Your task to perform on an android device: What is the recent news? Image 0: 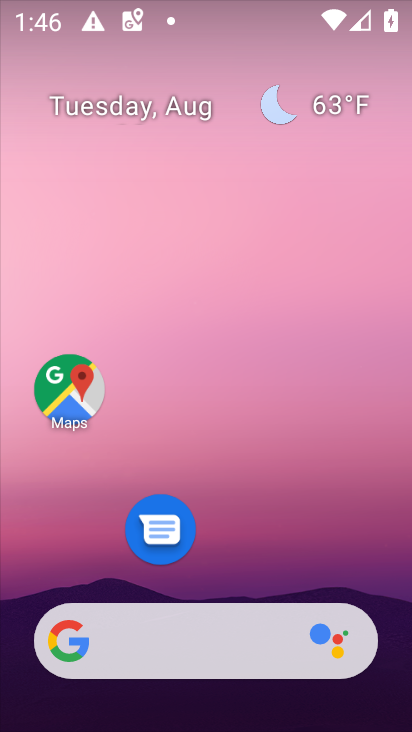
Step 0: click (239, 627)
Your task to perform on an android device: What is the recent news? Image 1: 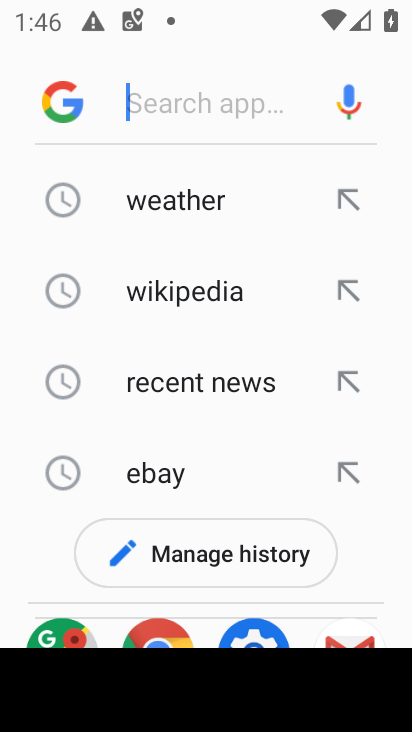
Step 1: click (175, 368)
Your task to perform on an android device: What is the recent news? Image 2: 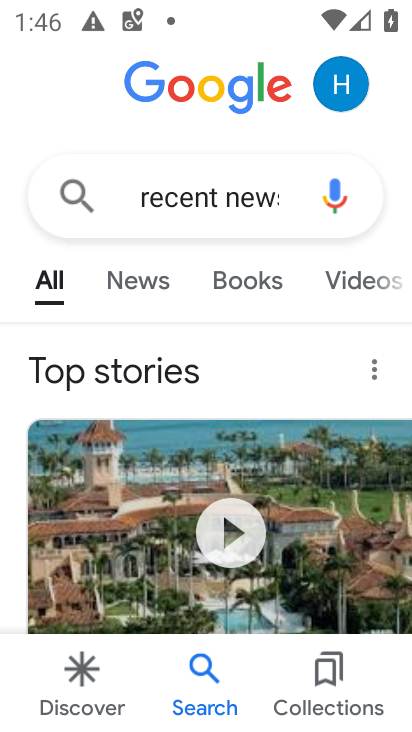
Step 2: task complete